Your task to perform on an android device: open wifi settings Image 0: 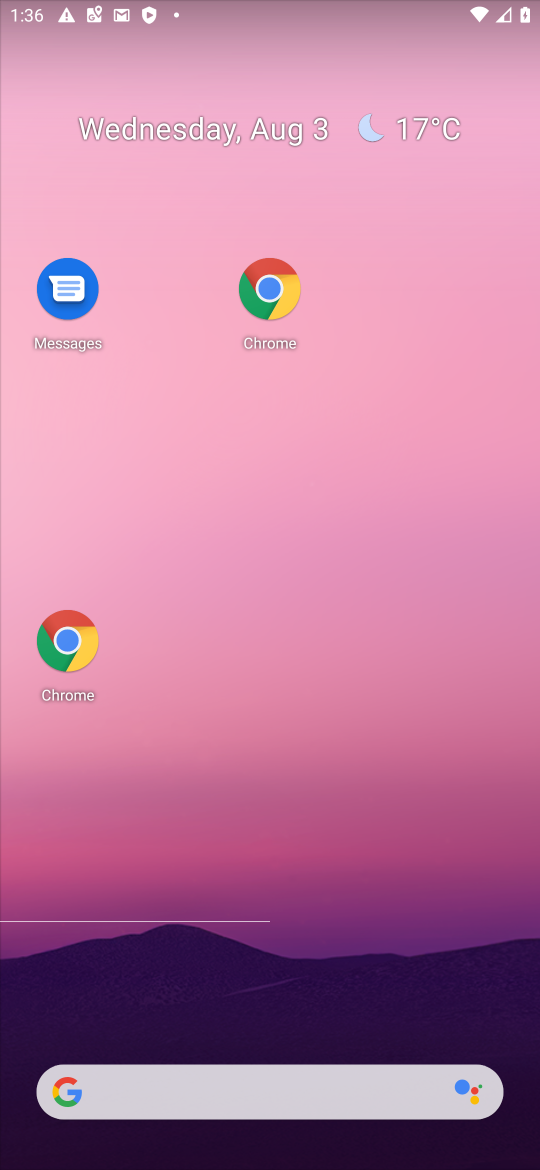
Step 0: drag from (368, 971) to (271, 221)
Your task to perform on an android device: open wifi settings Image 1: 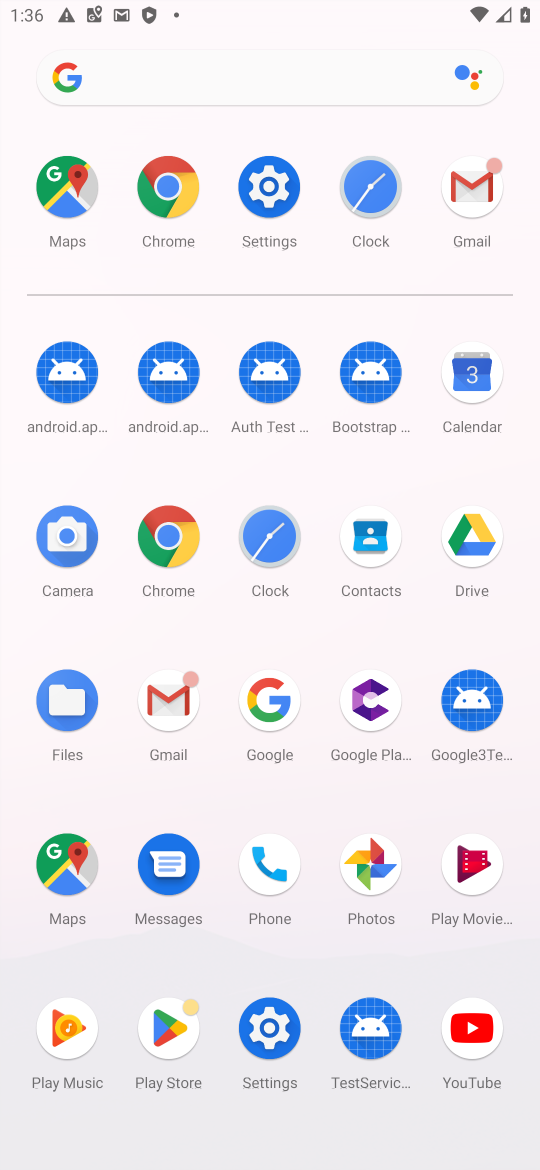
Step 1: click (281, 1052)
Your task to perform on an android device: open wifi settings Image 2: 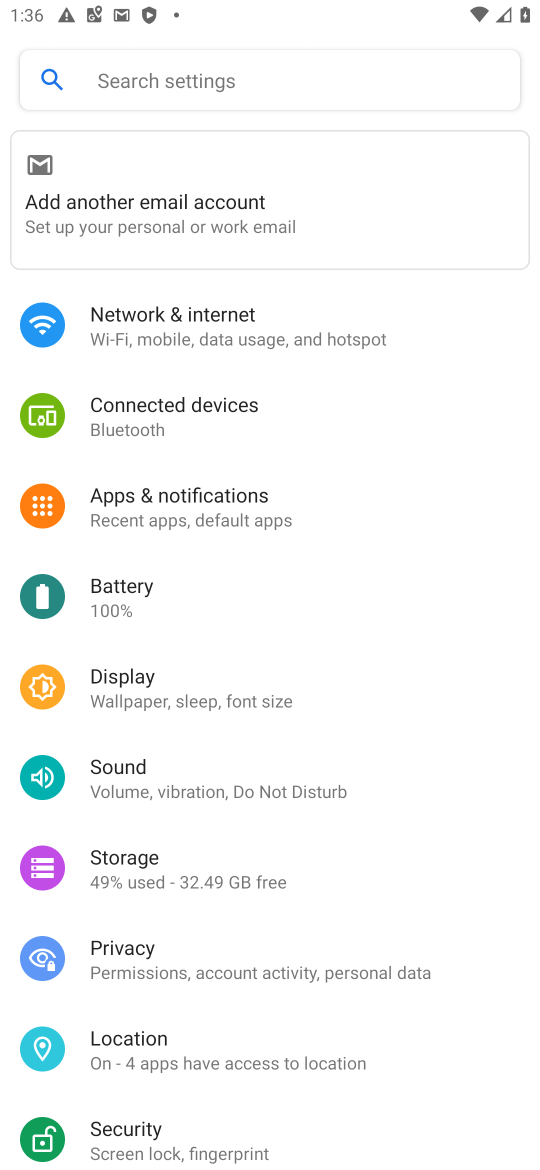
Step 2: click (197, 327)
Your task to perform on an android device: open wifi settings Image 3: 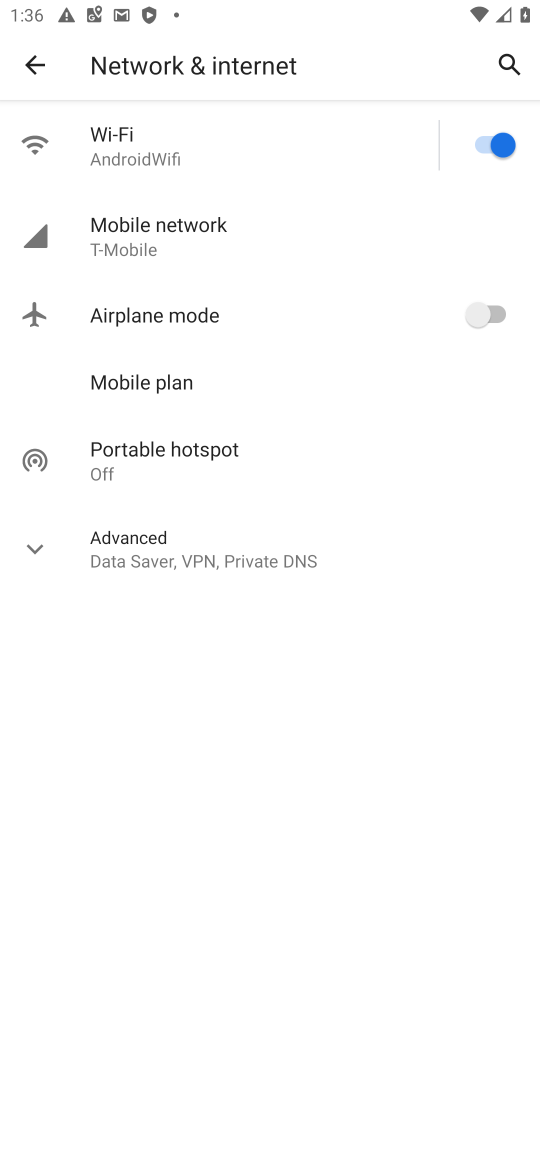
Step 3: task complete